Your task to perform on an android device: Open the phone app and click the voicemail tab. Image 0: 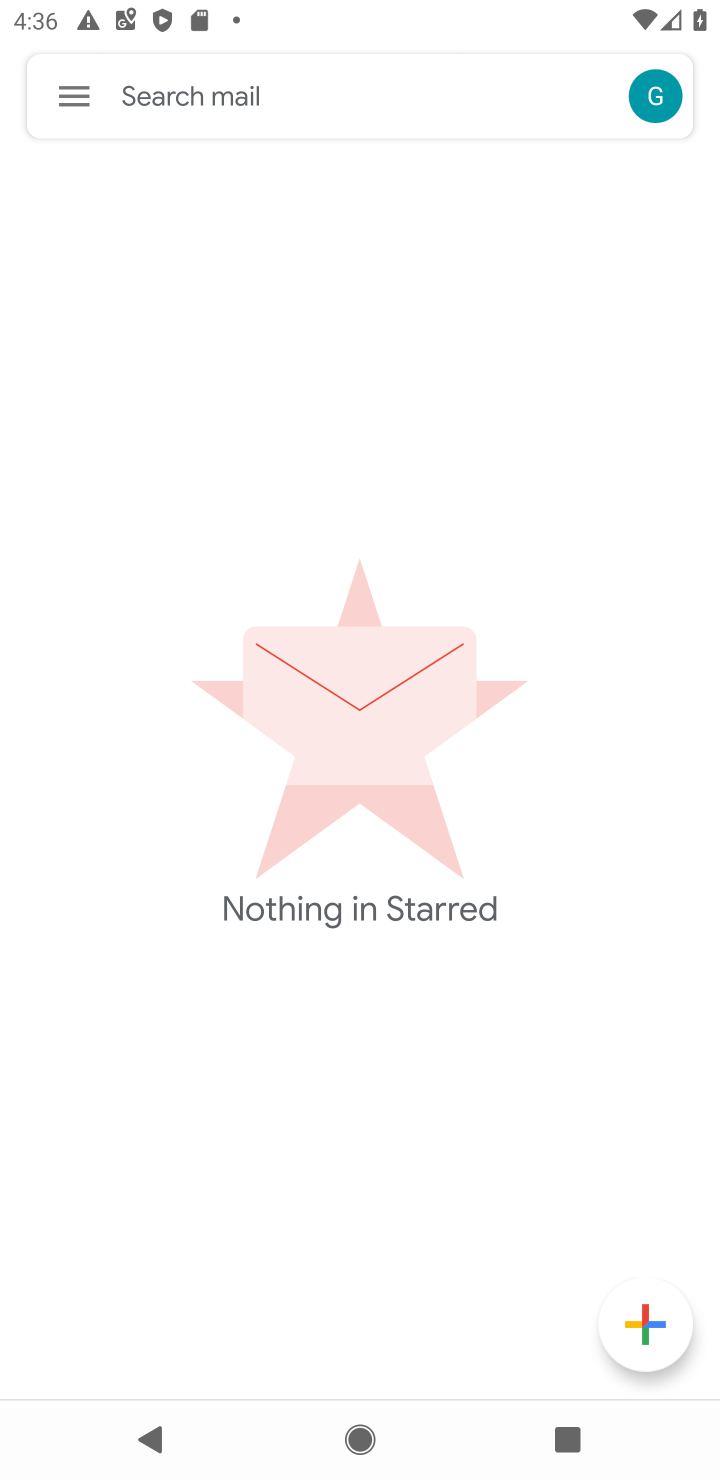
Step 0: press home button
Your task to perform on an android device: Open the phone app and click the voicemail tab. Image 1: 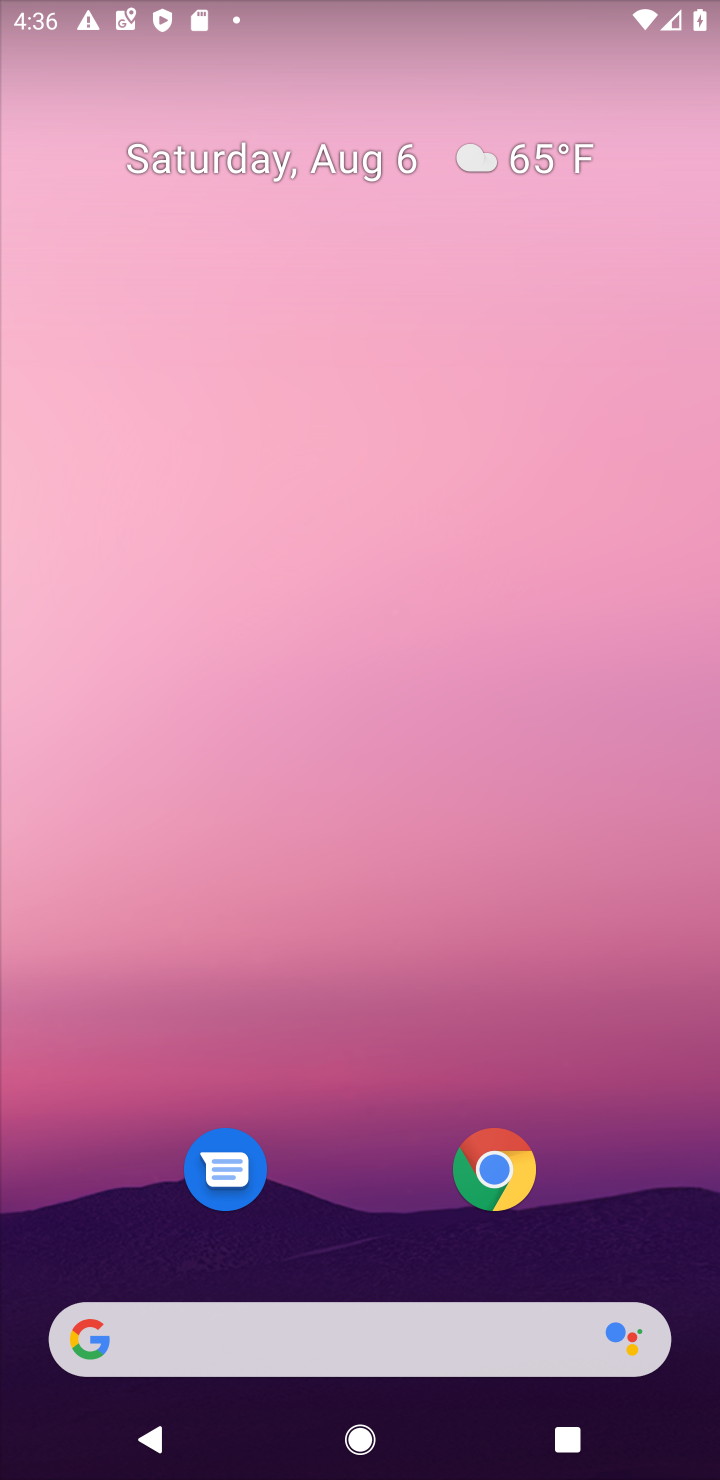
Step 1: drag from (385, 1101) to (291, 496)
Your task to perform on an android device: Open the phone app and click the voicemail tab. Image 2: 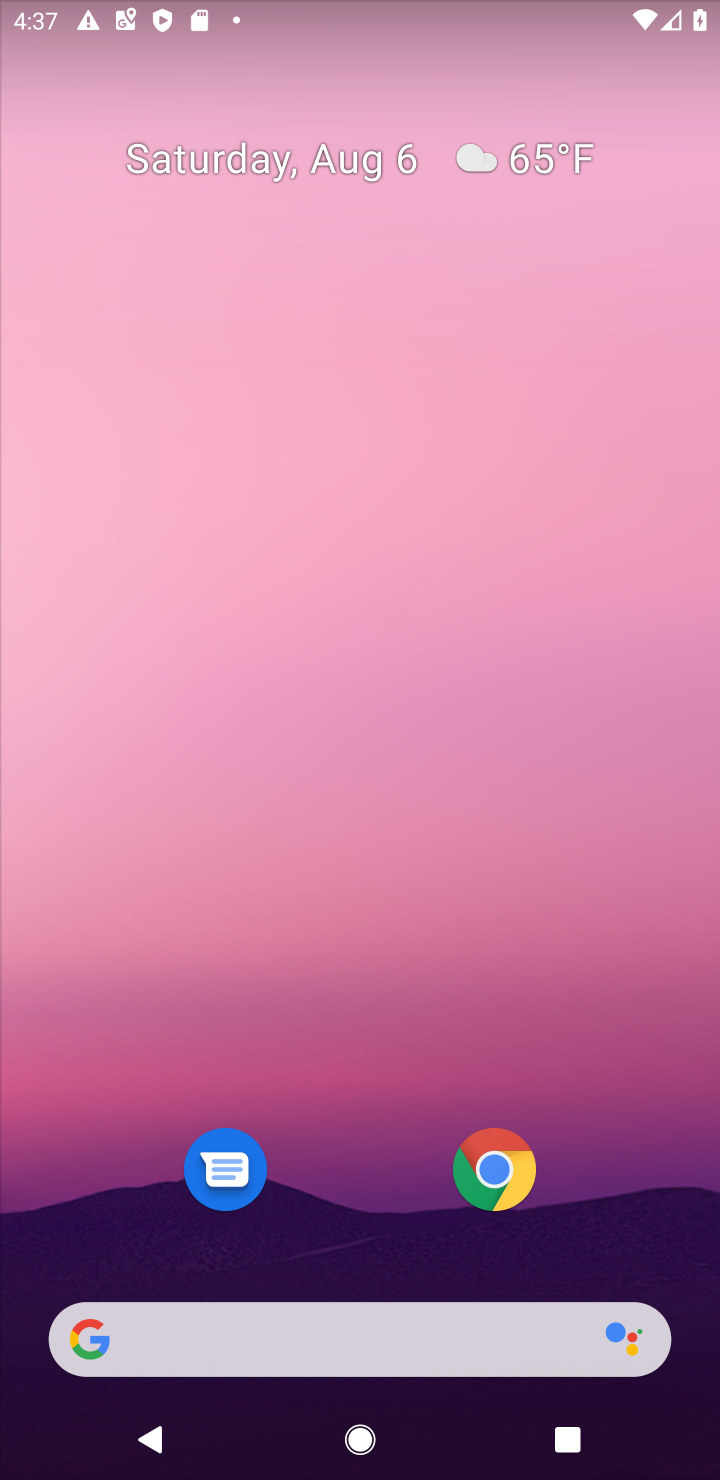
Step 2: drag from (325, 1229) to (307, 727)
Your task to perform on an android device: Open the phone app and click the voicemail tab. Image 3: 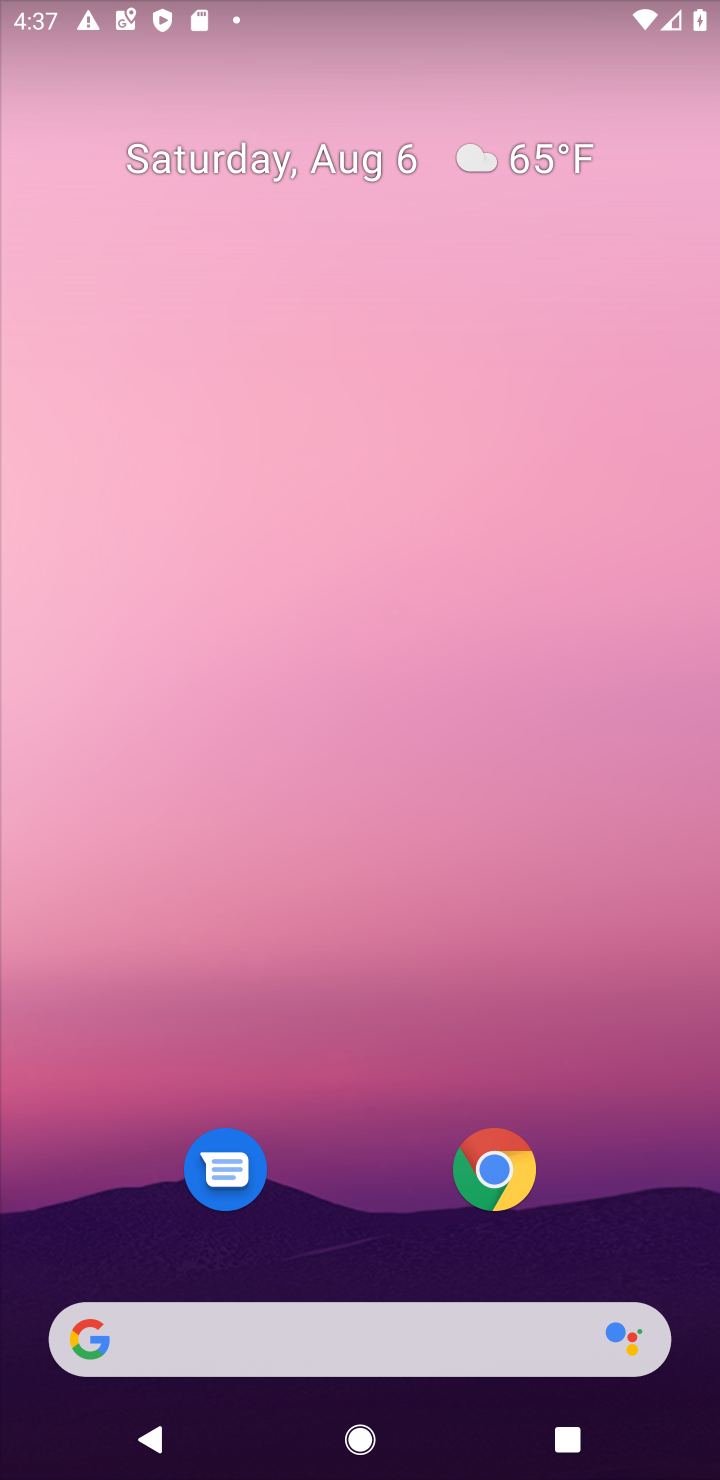
Step 3: drag from (342, 1077) to (306, 290)
Your task to perform on an android device: Open the phone app and click the voicemail tab. Image 4: 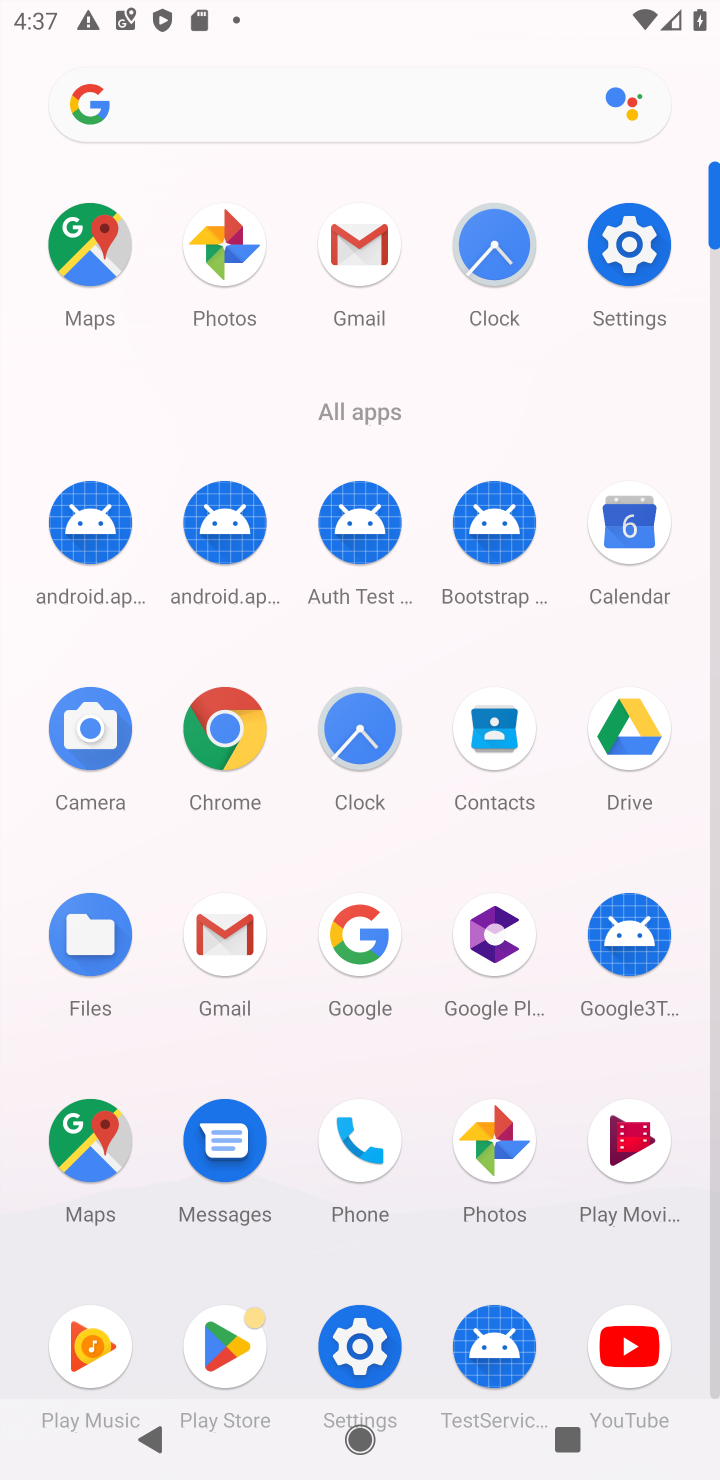
Step 4: click (378, 1135)
Your task to perform on an android device: Open the phone app and click the voicemail tab. Image 5: 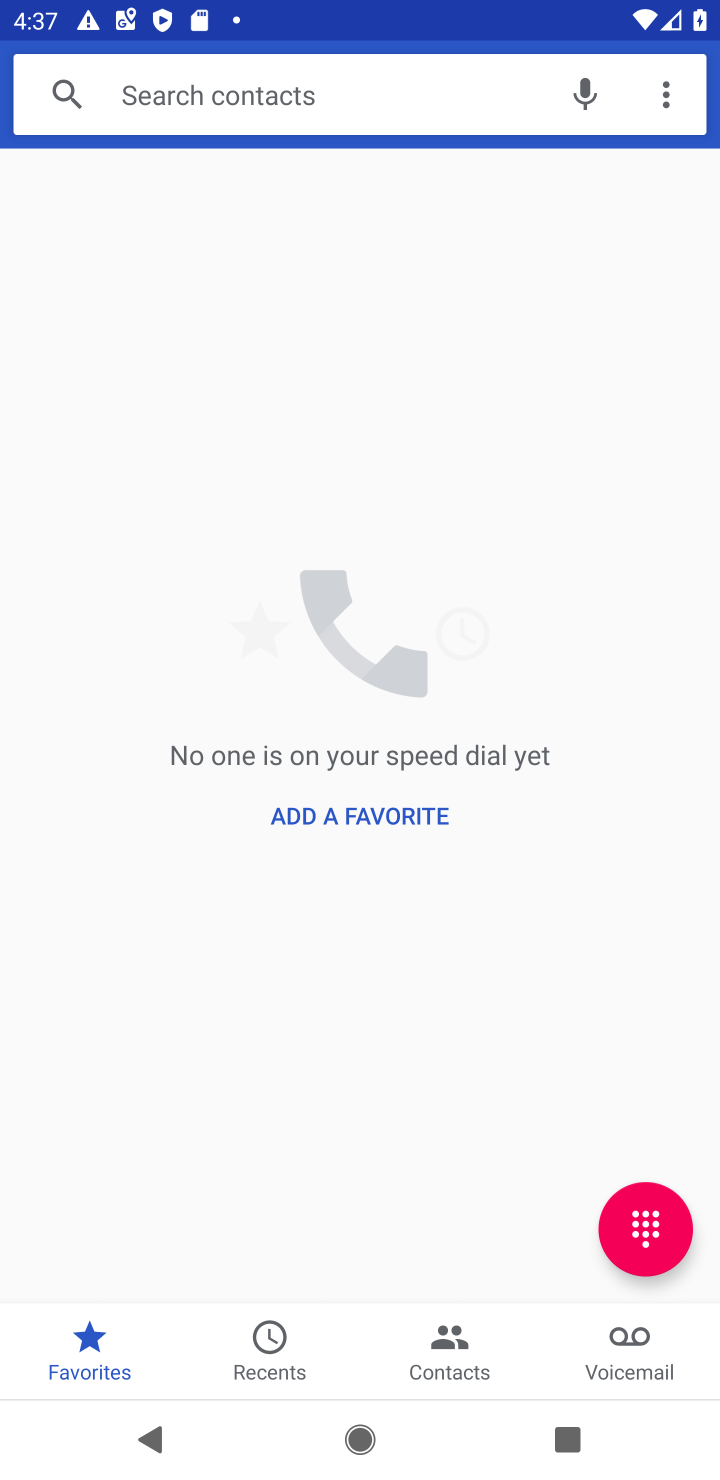
Step 5: click (633, 1337)
Your task to perform on an android device: Open the phone app and click the voicemail tab. Image 6: 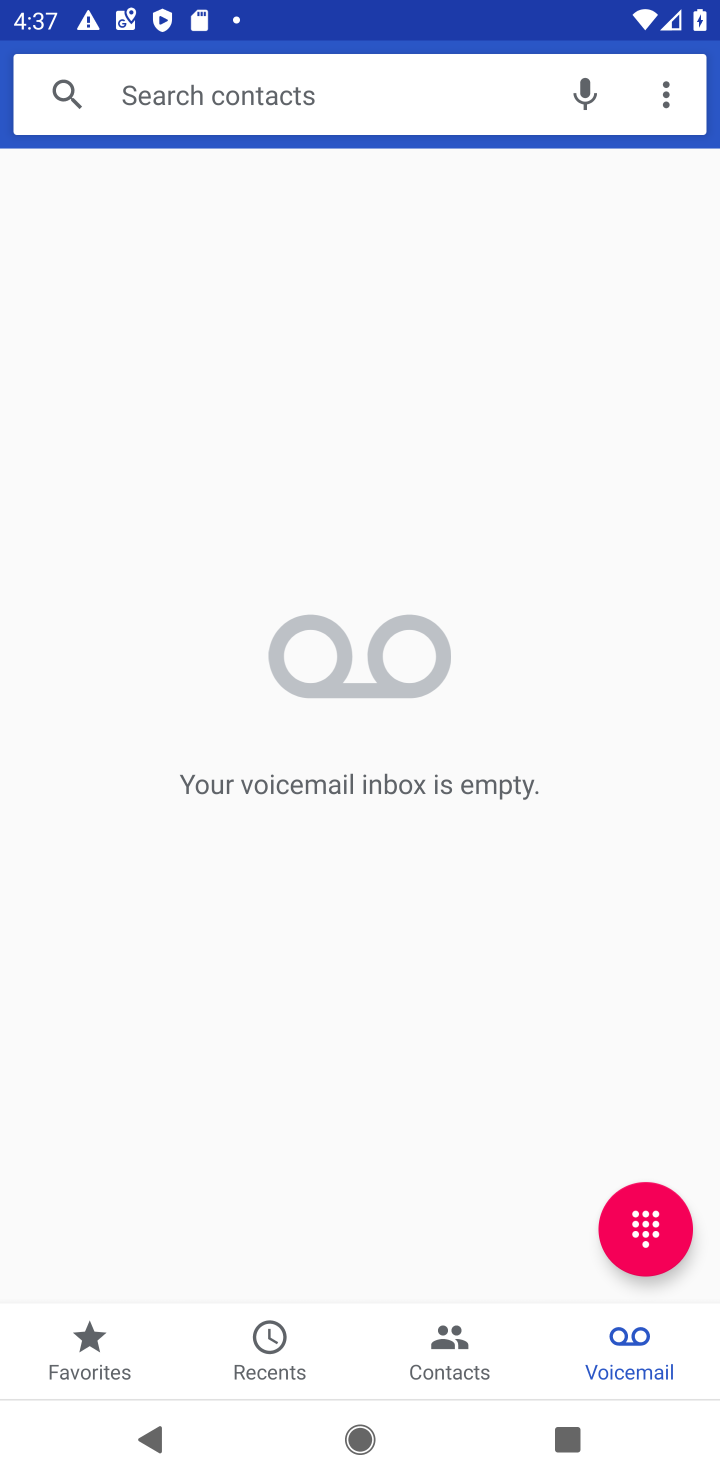
Step 6: task complete